Your task to perform on an android device: Open Google Chrome and open the bookmarks view Image 0: 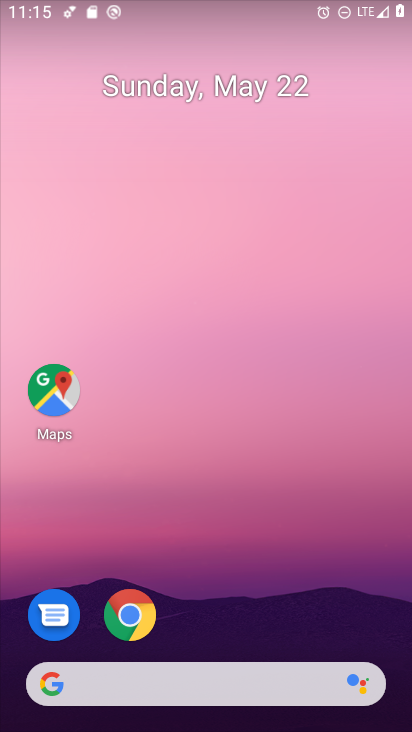
Step 0: drag from (241, 584) to (230, 78)
Your task to perform on an android device: Open Google Chrome and open the bookmarks view Image 1: 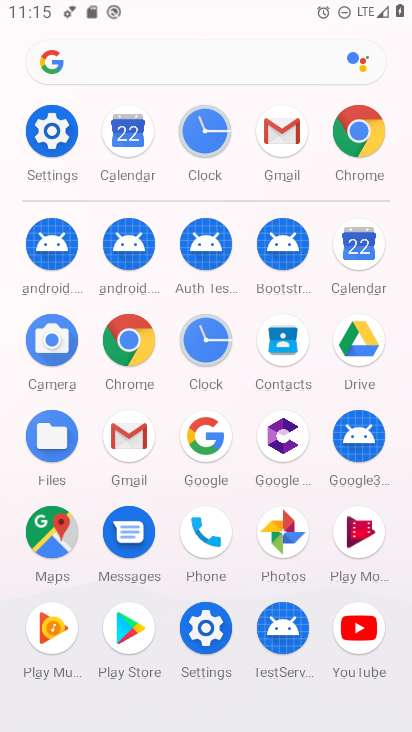
Step 1: click (121, 354)
Your task to perform on an android device: Open Google Chrome and open the bookmarks view Image 2: 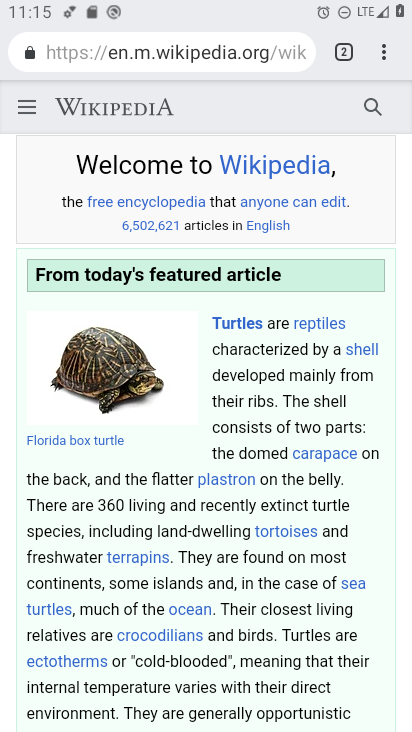
Step 2: click (386, 51)
Your task to perform on an android device: Open Google Chrome and open the bookmarks view Image 3: 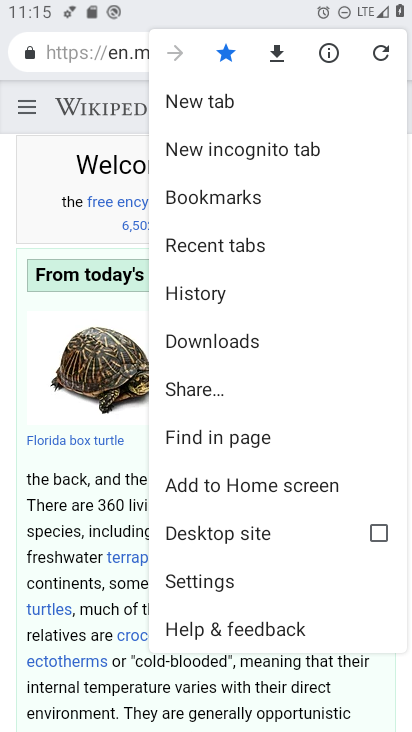
Step 3: drag from (233, 518) to (279, 184)
Your task to perform on an android device: Open Google Chrome and open the bookmarks view Image 4: 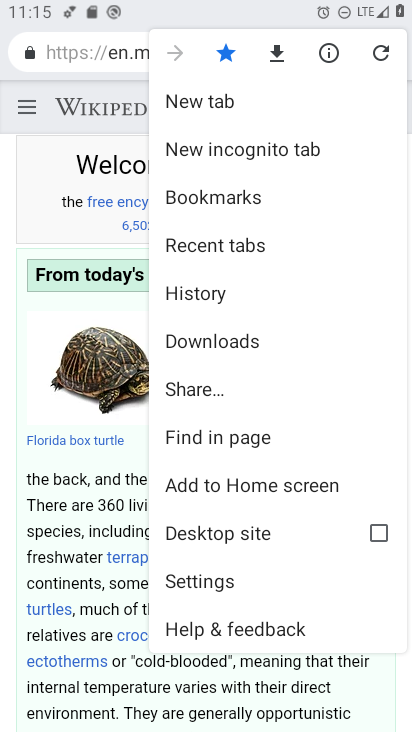
Step 4: click (246, 190)
Your task to perform on an android device: Open Google Chrome and open the bookmarks view Image 5: 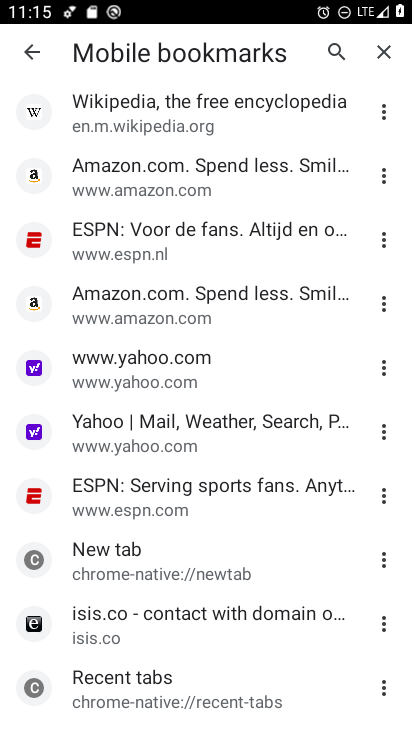
Step 5: task complete